Your task to perform on an android device: install app "eBay: The shopping marketplace" Image 0: 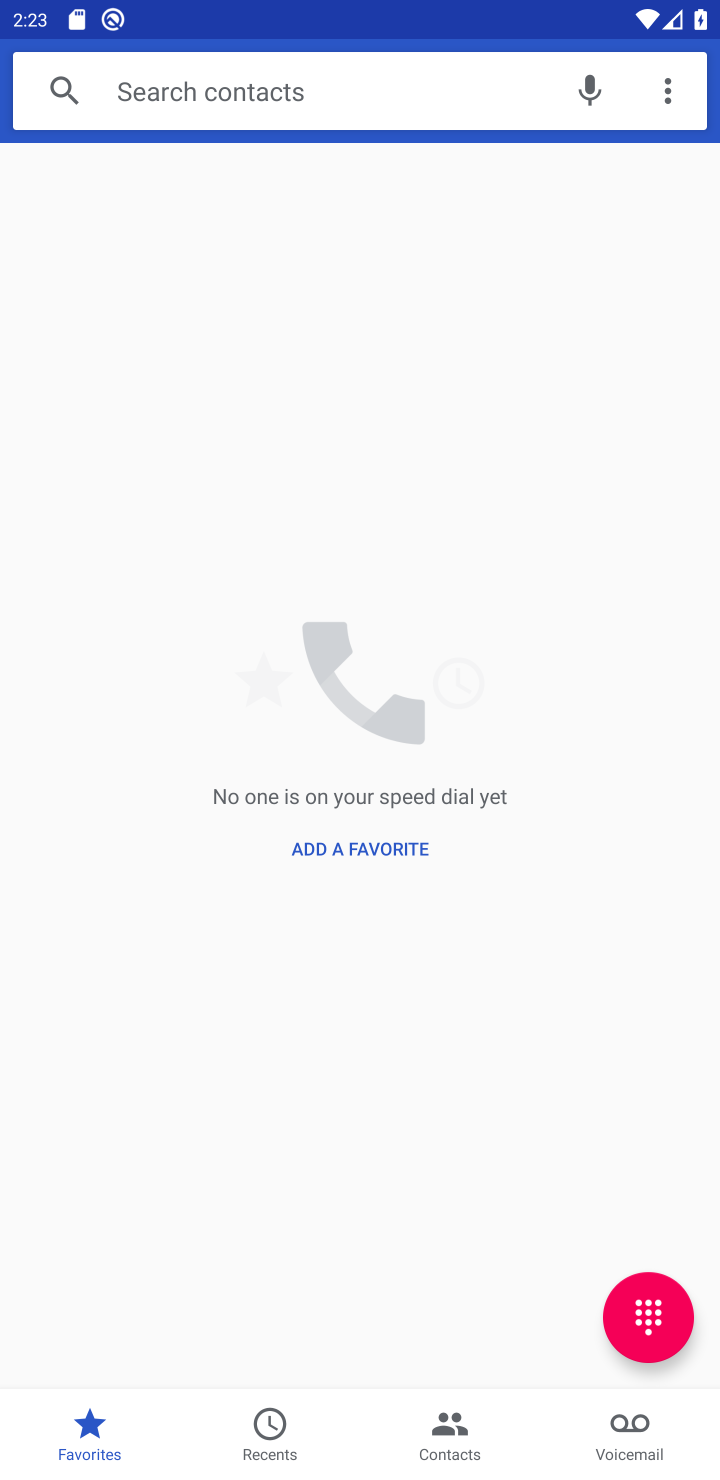
Step 0: press home button
Your task to perform on an android device: install app "eBay: The shopping marketplace" Image 1: 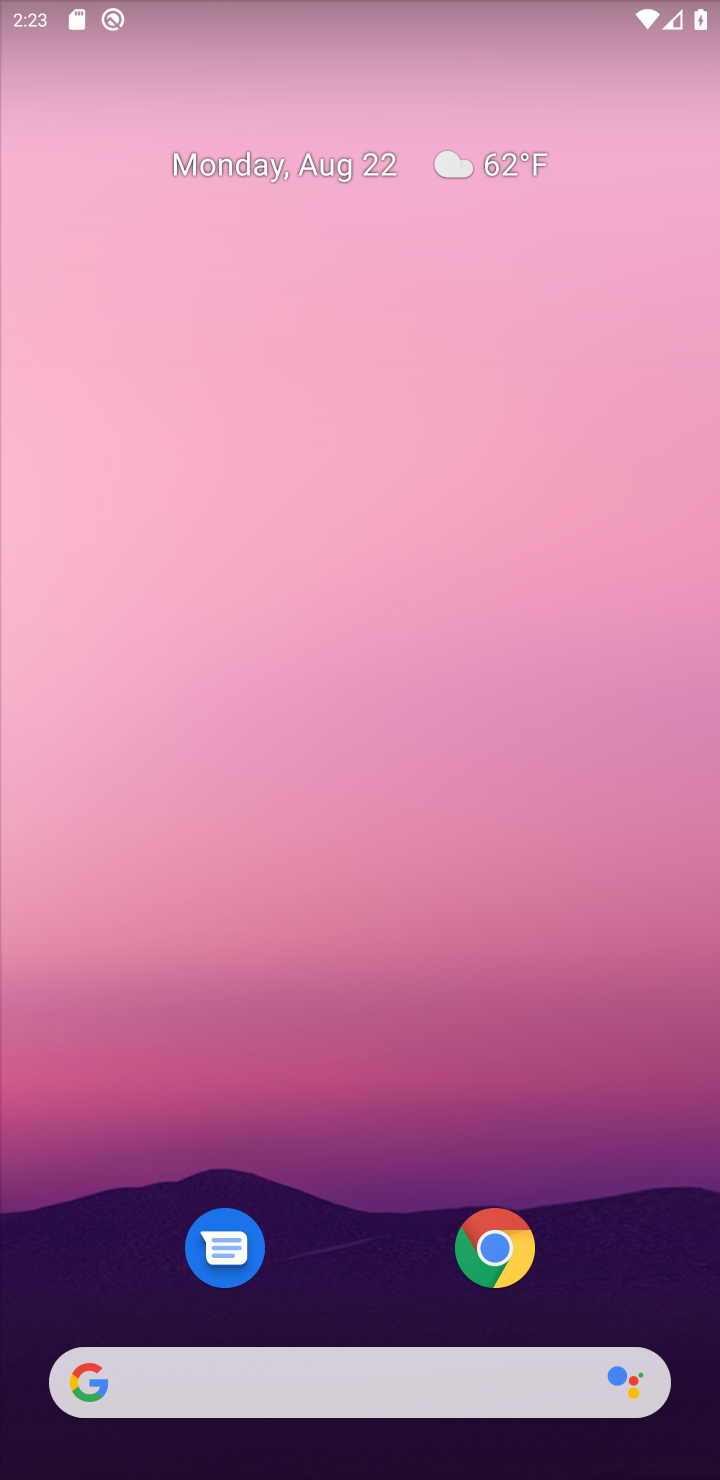
Step 1: drag from (260, 736) to (193, 18)
Your task to perform on an android device: install app "eBay: The shopping marketplace" Image 2: 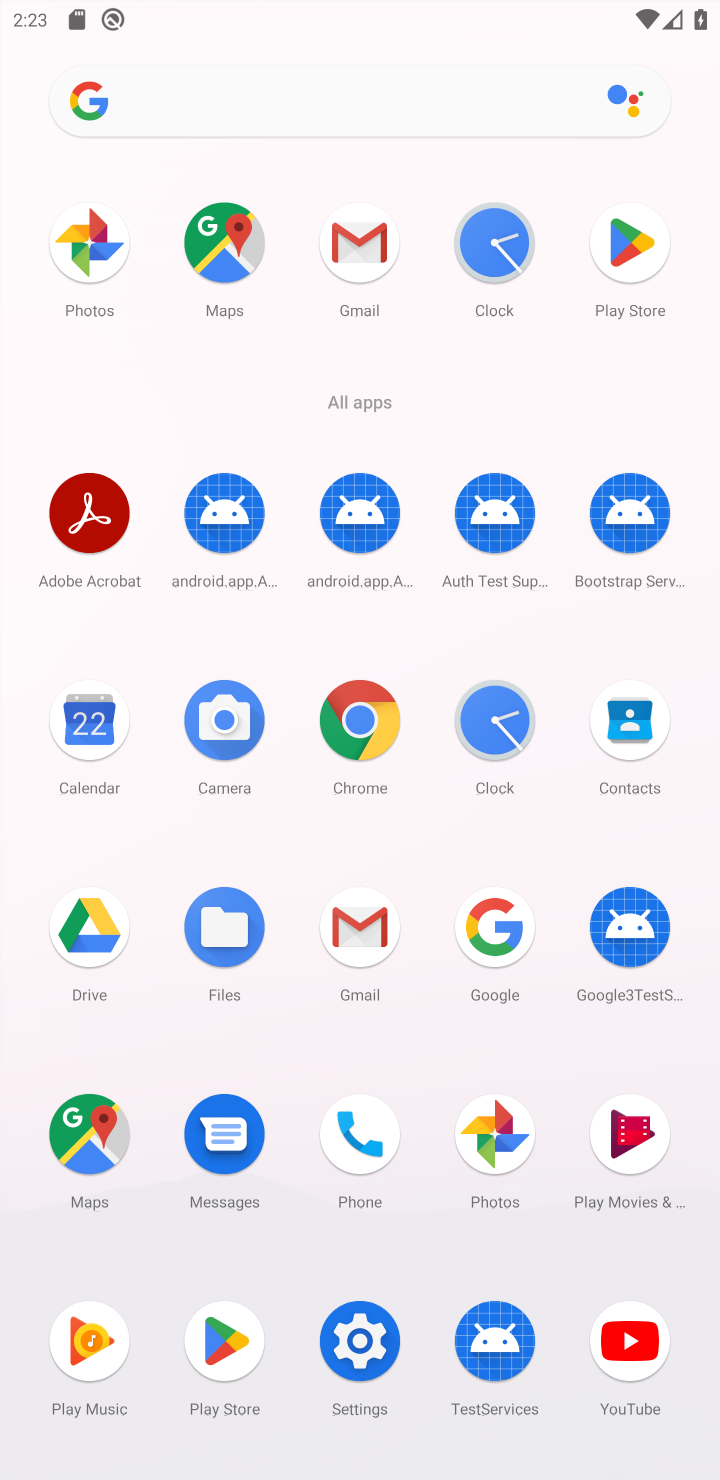
Step 2: click (626, 256)
Your task to perform on an android device: install app "eBay: The shopping marketplace" Image 3: 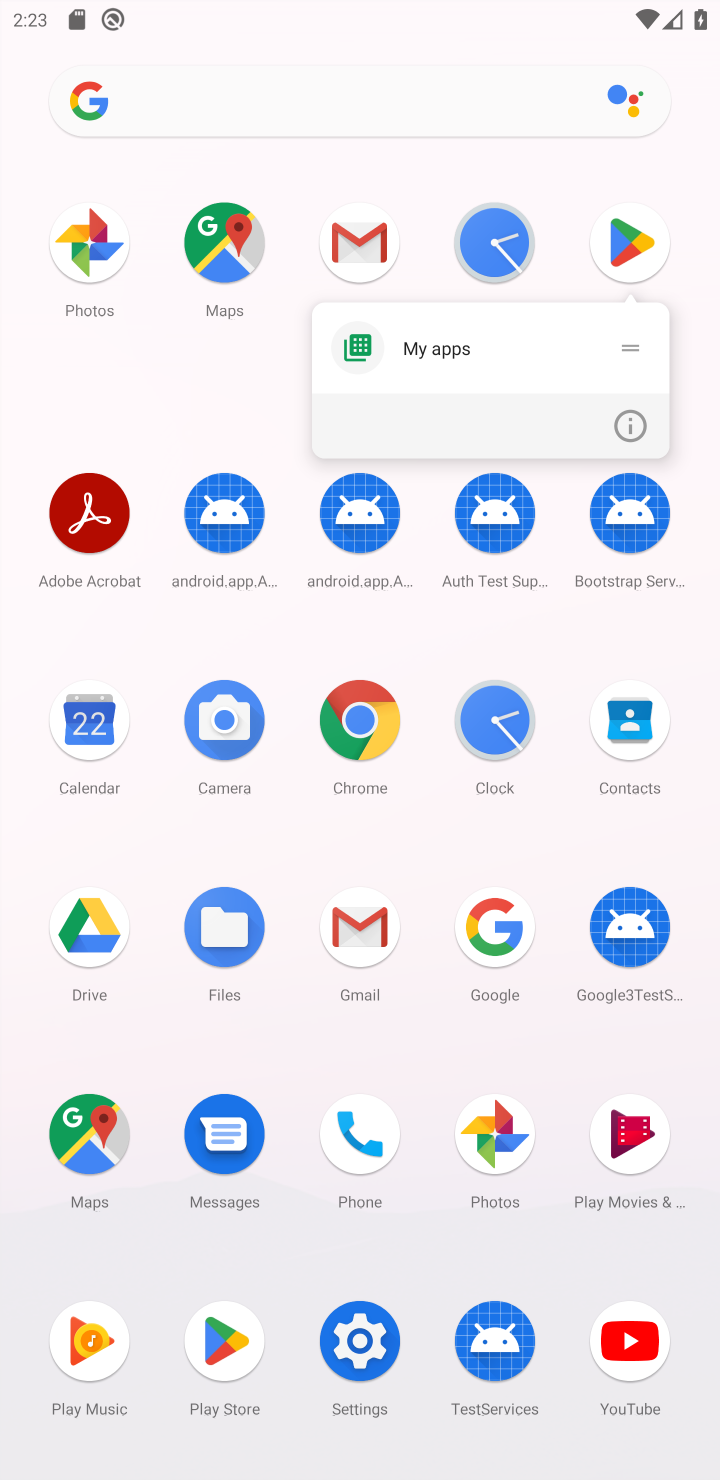
Step 3: click (627, 229)
Your task to perform on an android device: install app "eBay: The shopping marketplace" Image 4: 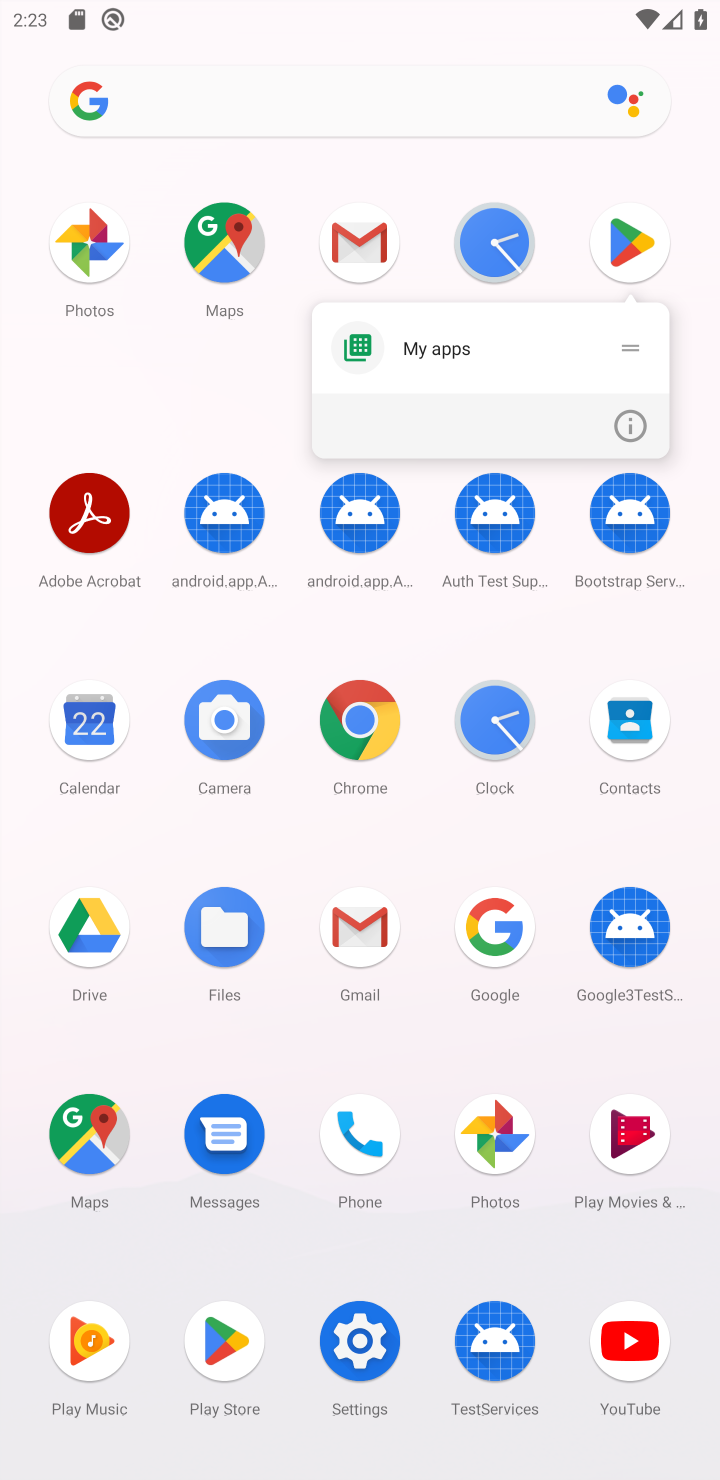
Step 4: click (637, 241)
Your task to perform on an android device: install app "eBay: The shopping marketplace" Image 5: 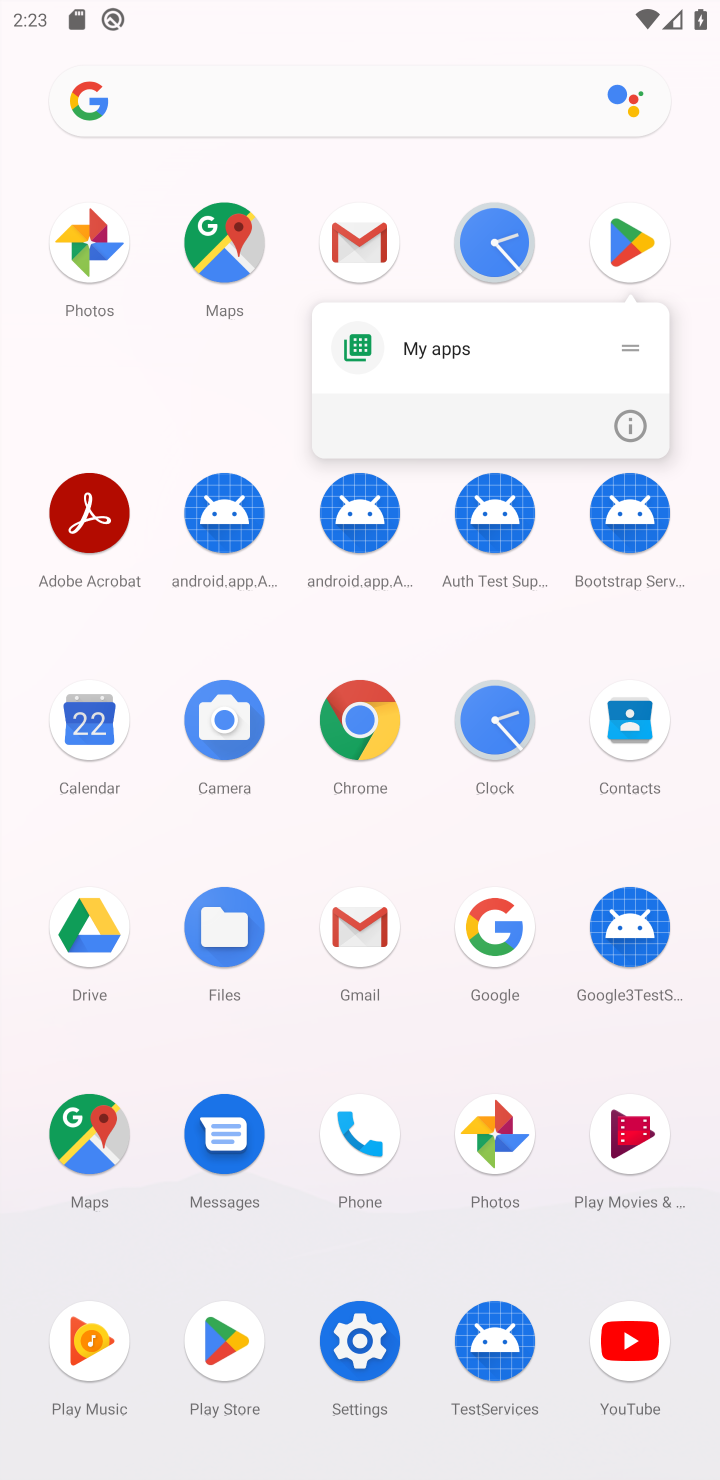
Step 5: click (637, 243)
Your task to perform on an android device: install app "eBay: The shopping marketplace" Image 6: 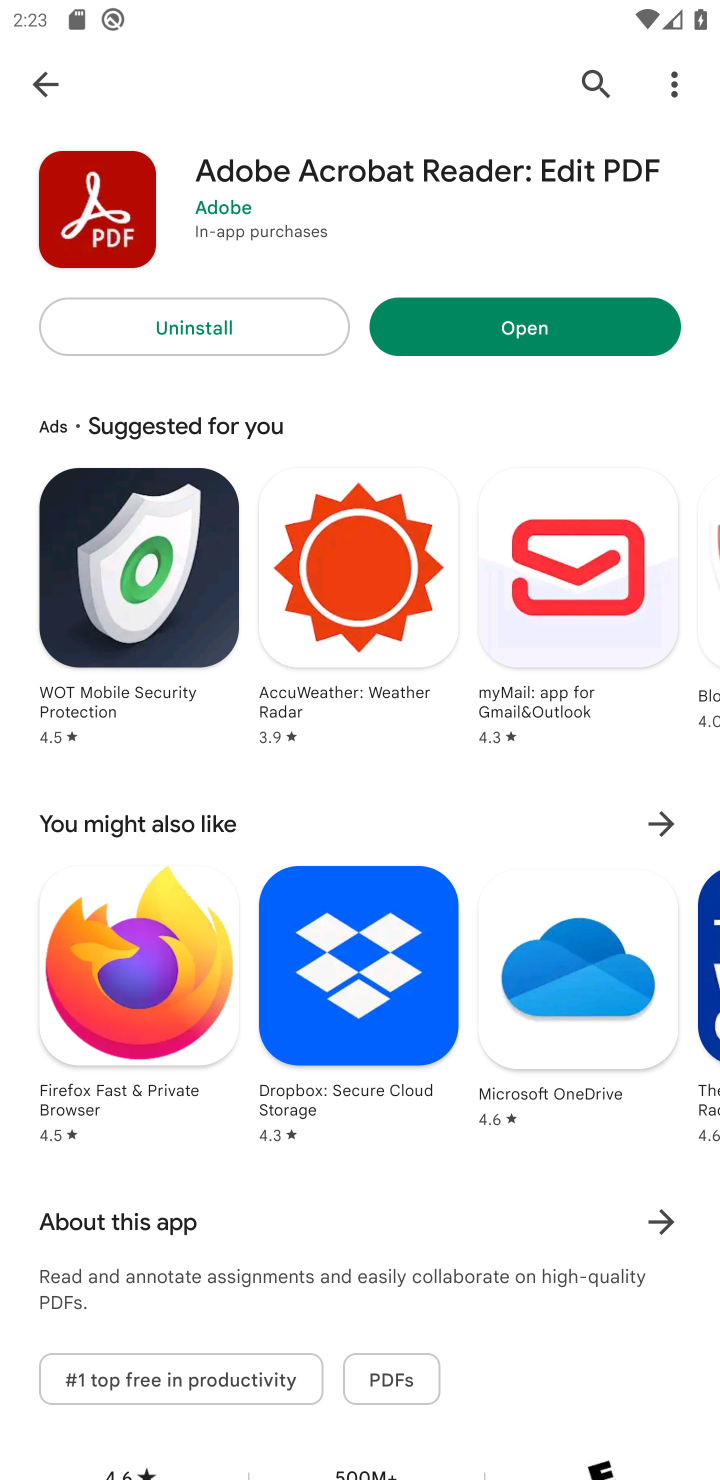
Step 6: click (56, 83)
Your task to perform on an android device: install app "eBay: The shopping marketplace" Image 7: 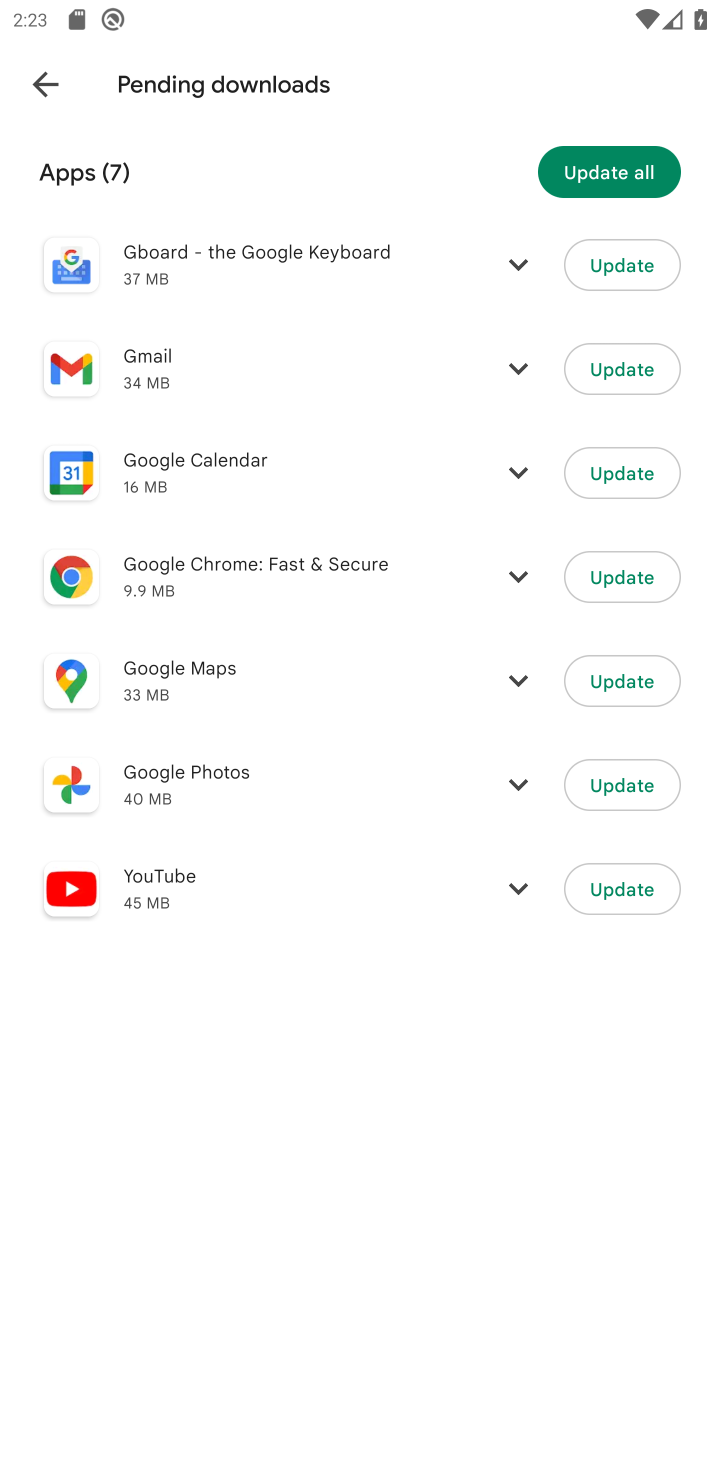
Step 7: click (47, 76)
Your task to perform on an android device: install app "eBay: The shopping marketplace" Image 8: 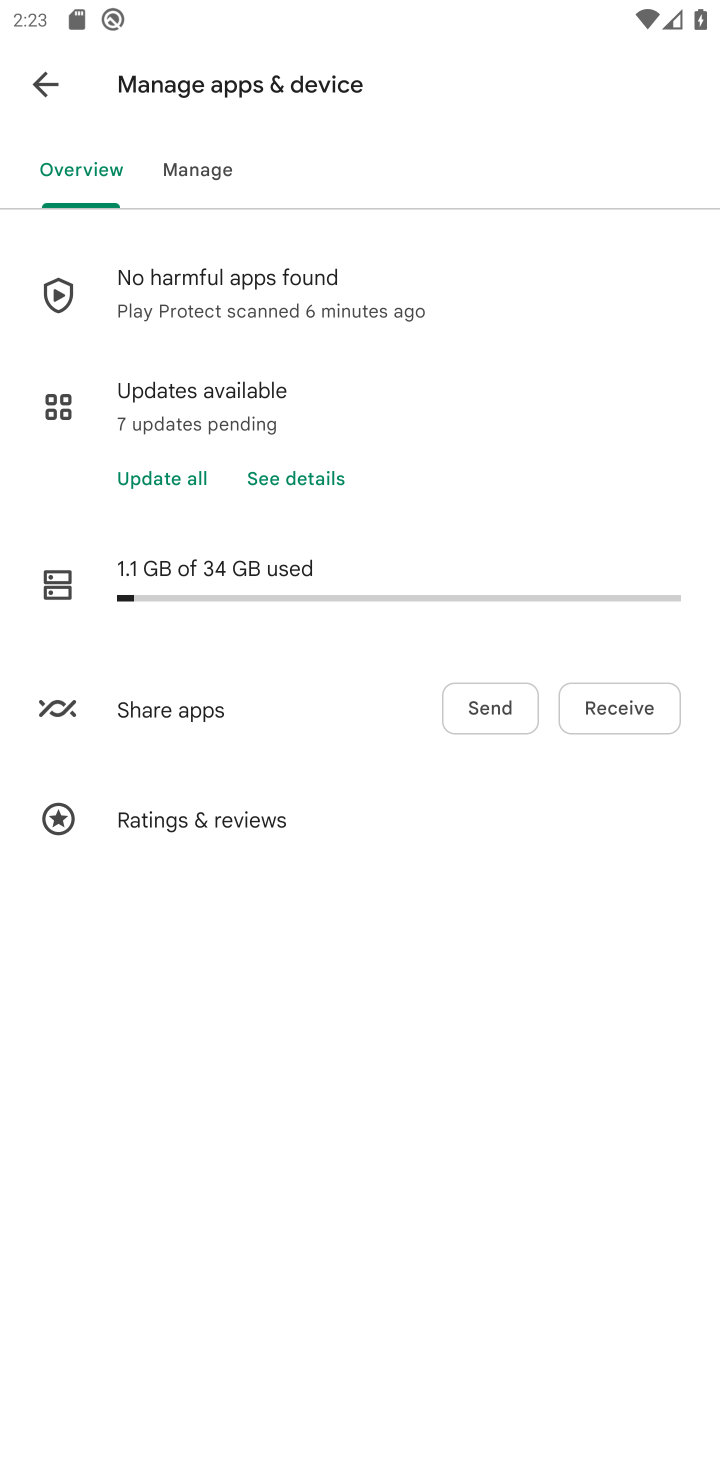
Step 8: click (54, 66)
Your task to perform on an android device: install app "eBay: The shopping marketplace" Image 9: 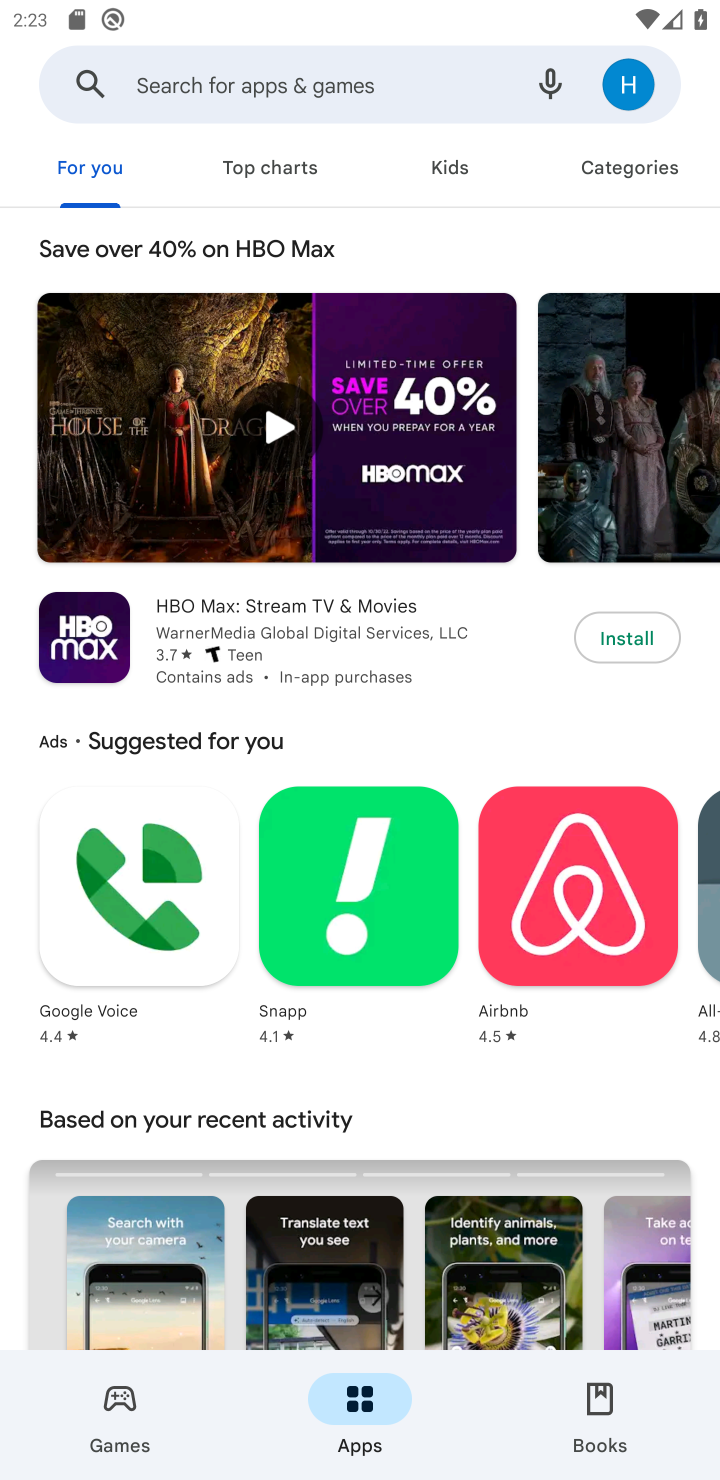
Step 9: click (224, 71)
Your task to perform on an android device: install app "eBay: The shopping marketplace" Image 10: 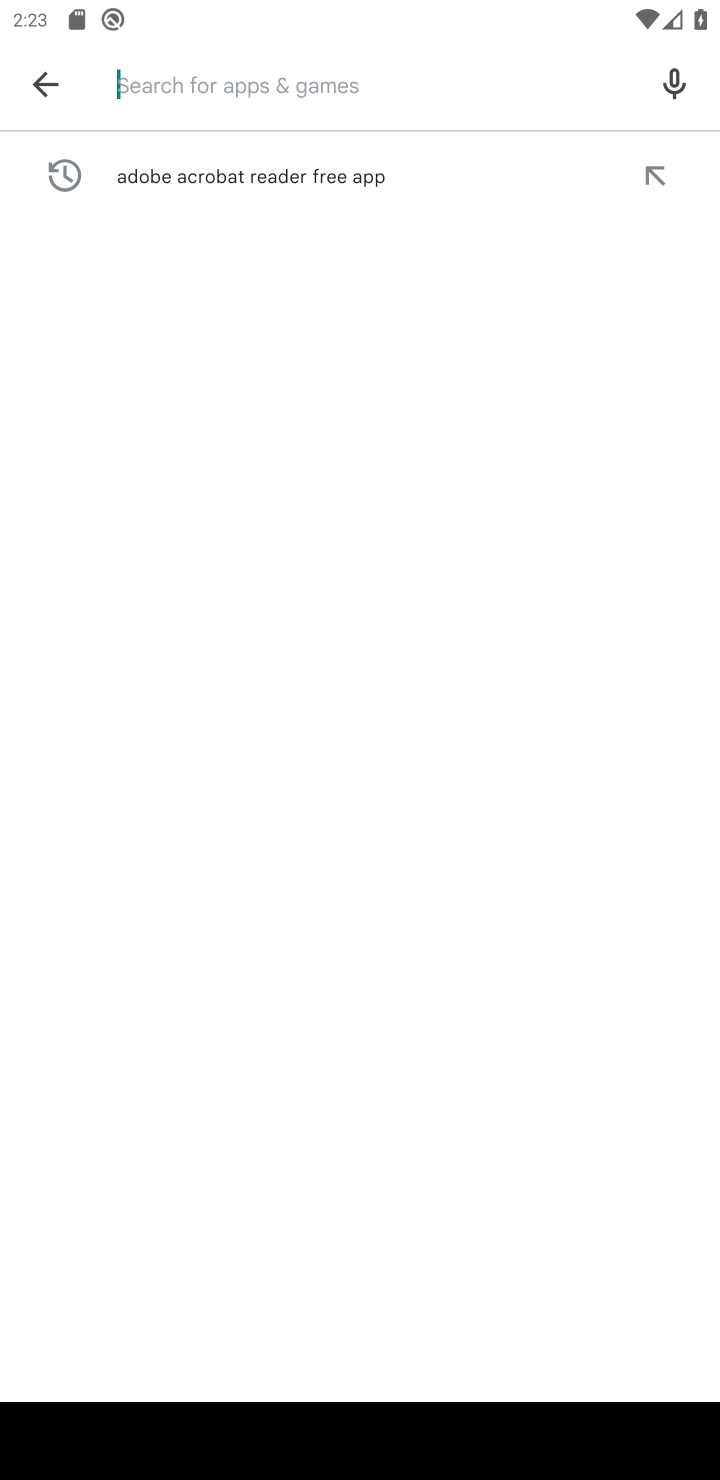
Step 10: type "eBay"
Your task to perform on an android device: install app "eBay: The shopping marketplace" Image 11: 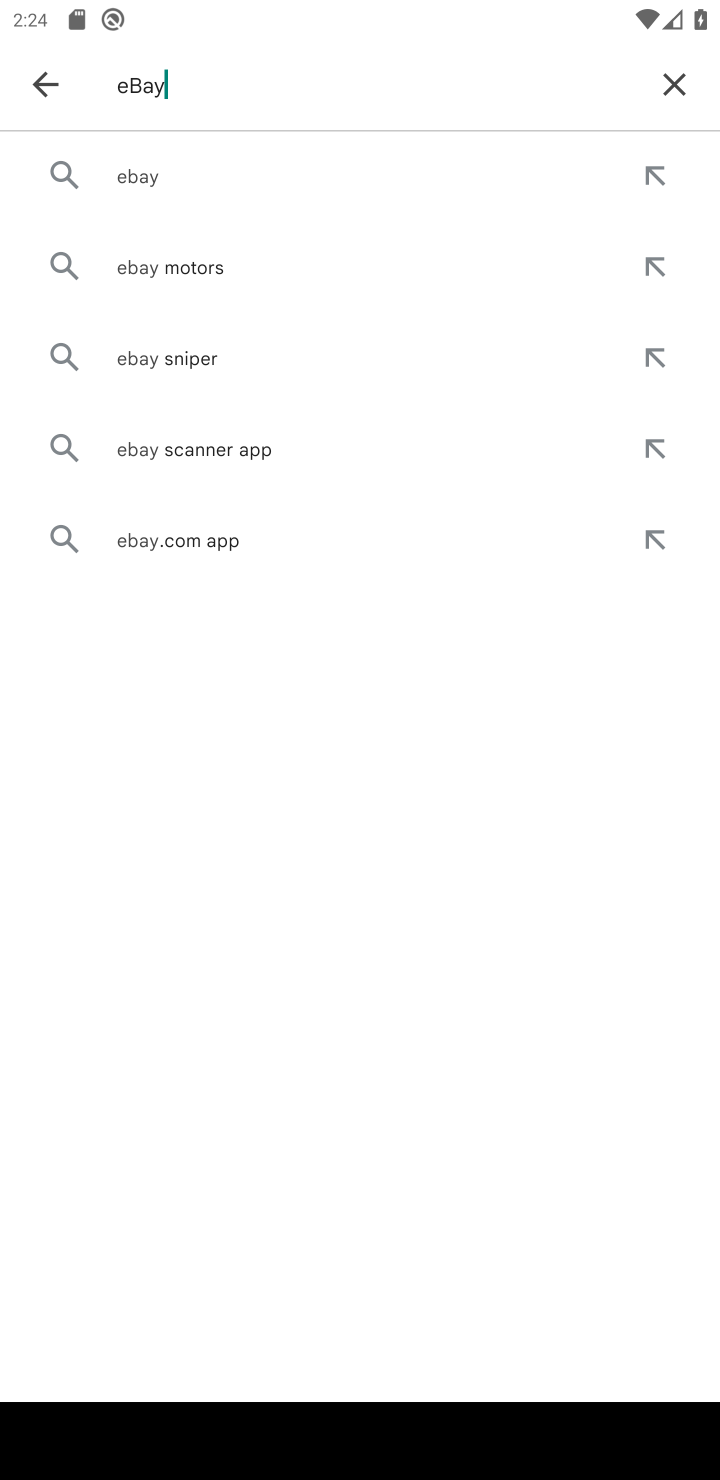
Step 11: click (196, 175)
Your task to perform on an android device: install app "eBay: The shopping marketplace" Image 12: 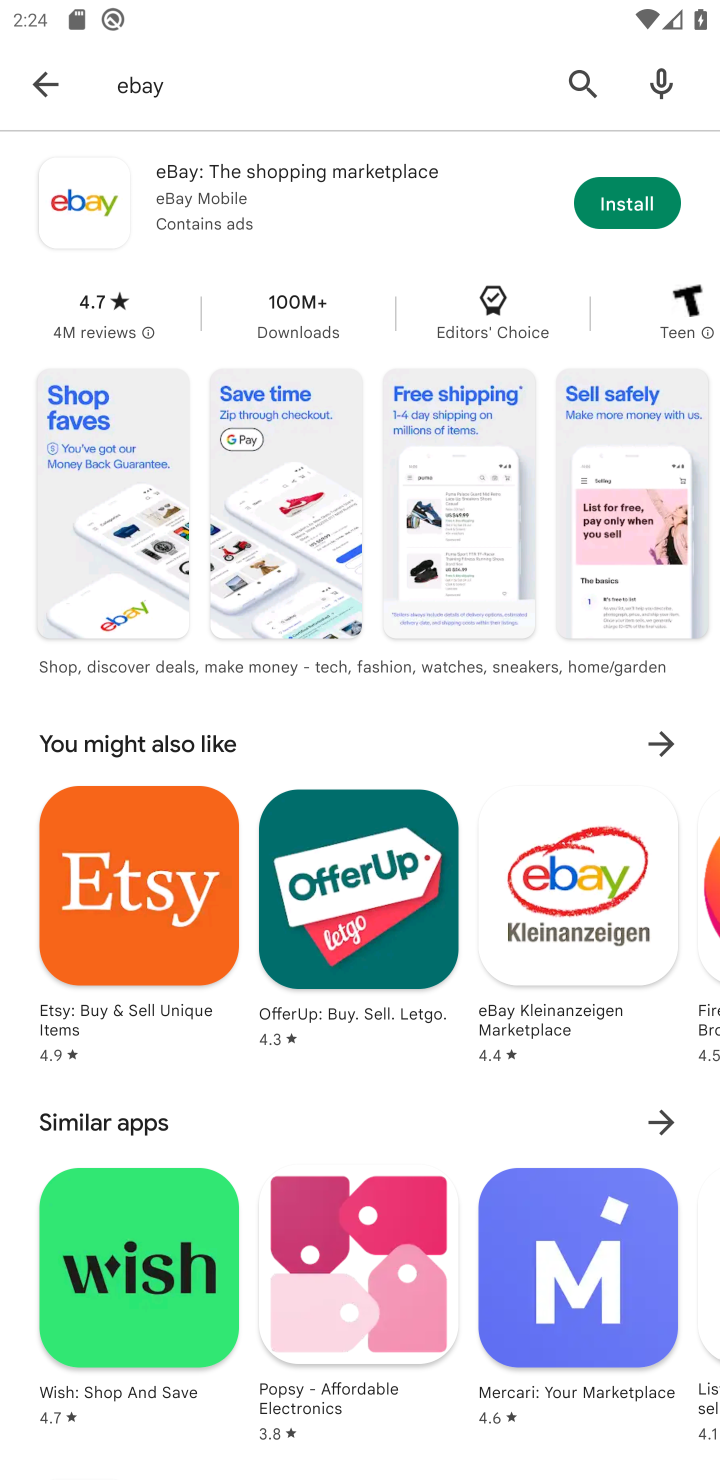
Step 12: click (669, 201)
Your task to perform on an android device: install app "eBay: The shopping marketplace" Image 13: 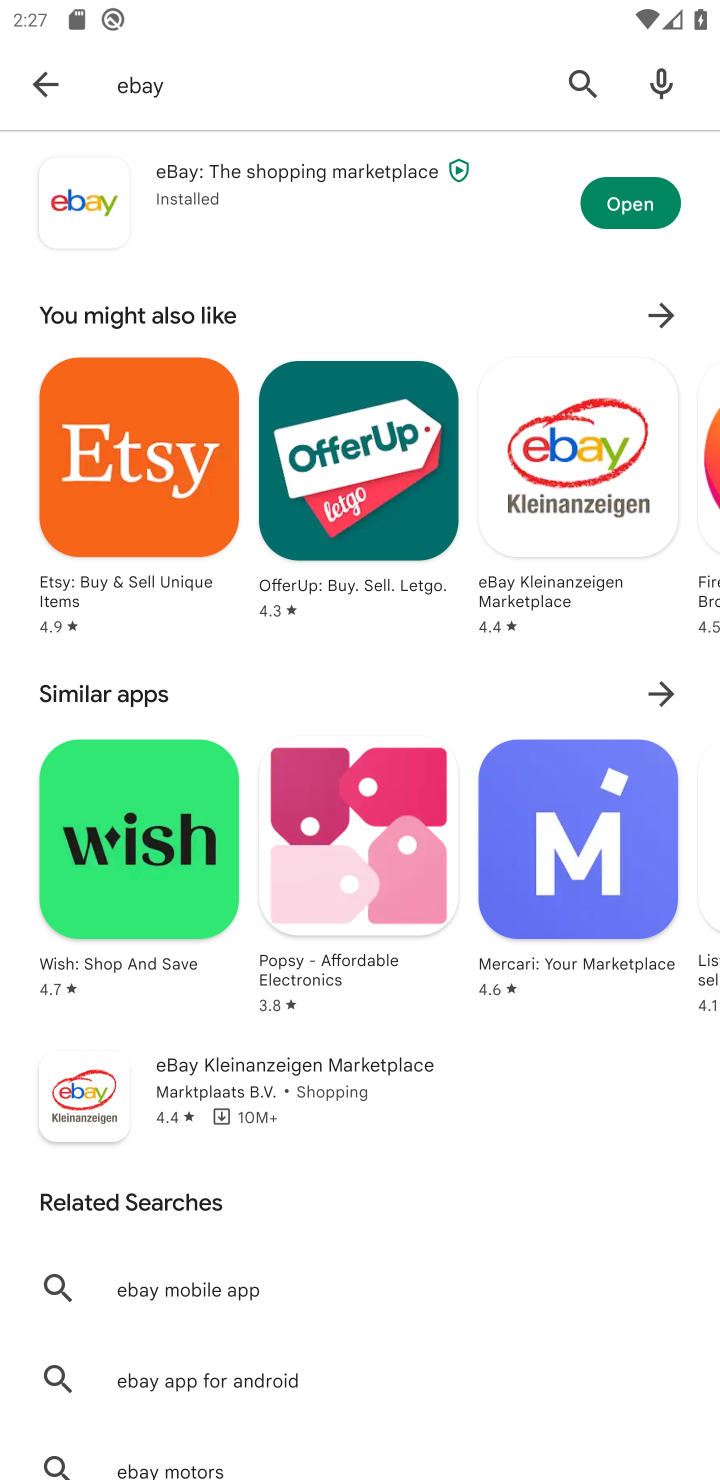
Step 13: task complete